Your task to perform on an android device: Open the calendar and show me this week's events Image 0: 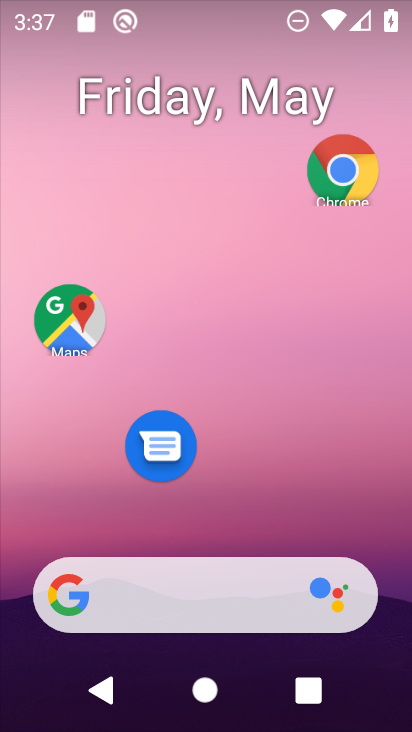
Step 0: press home button
Your task to perform on an android device: Open the calendar and show me this week's events Image 1: 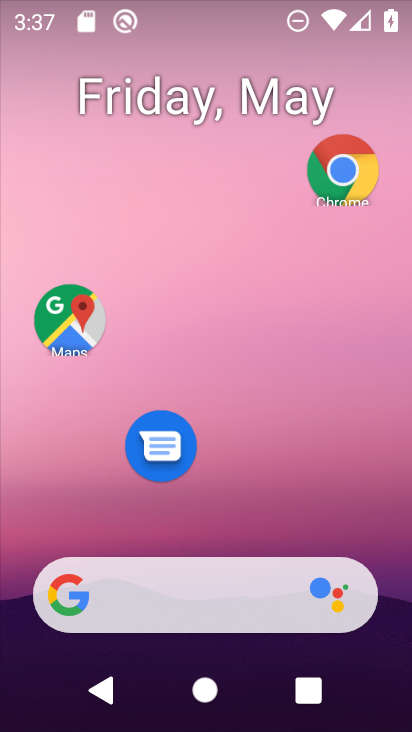
Step 1: drag from (339, 510) to (375, 136)
Your task to perform on an android device: Open the calendar and show me this week's events Image 2: 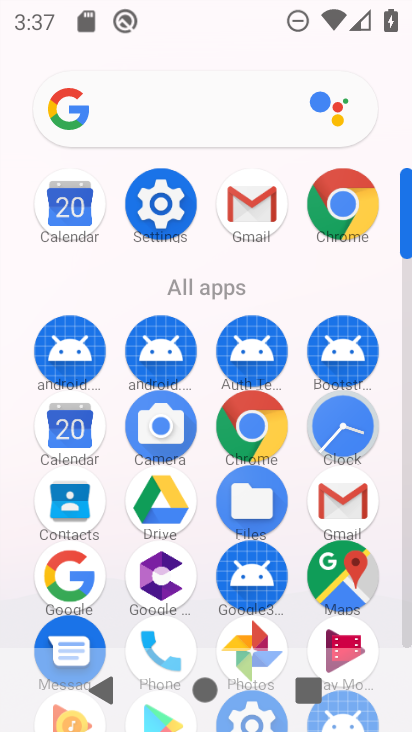
Step 2: click (57, 210)
Your task to perform on an android device: Open the calendar and show me this week's events Image 3: 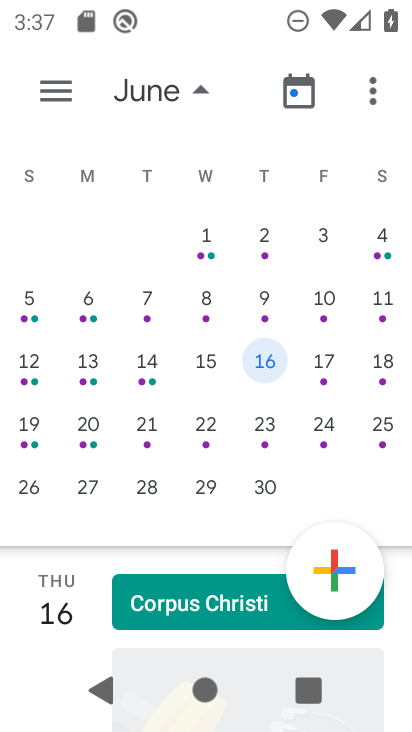
Step 3: click (162, 94)
Your task to perform on an android device: Open the calendar and show me this week's events Image 4: 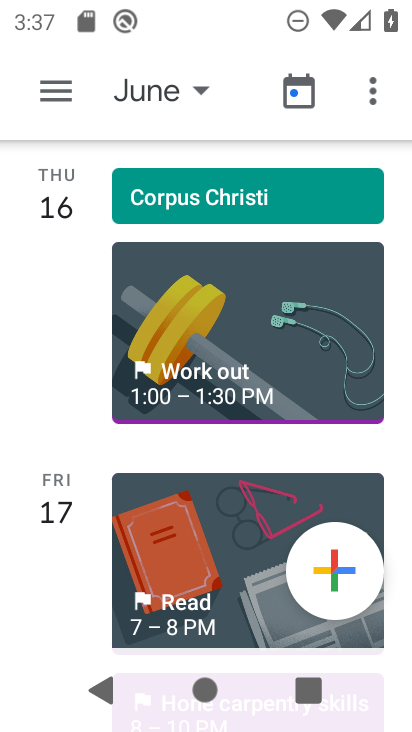
Step 4: click (172, 96)
Your task to perform on an android device: Open the calendar and show me this week's events Image 5: 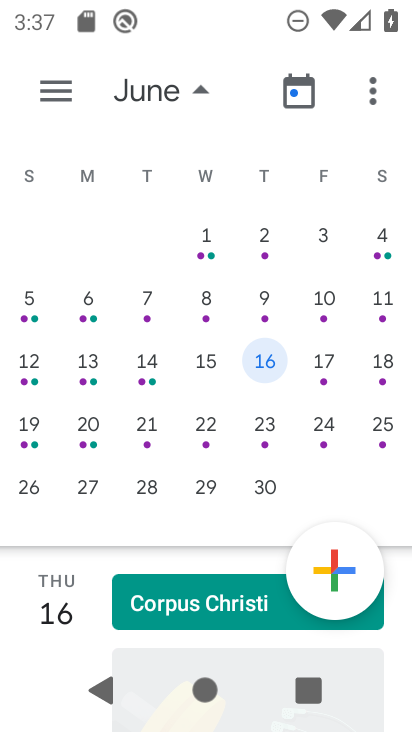
Step 5: drag from (36, 258) to (406, 279)
Your task to perform on an android device: Open the calendar and show me this week's events Image 6: 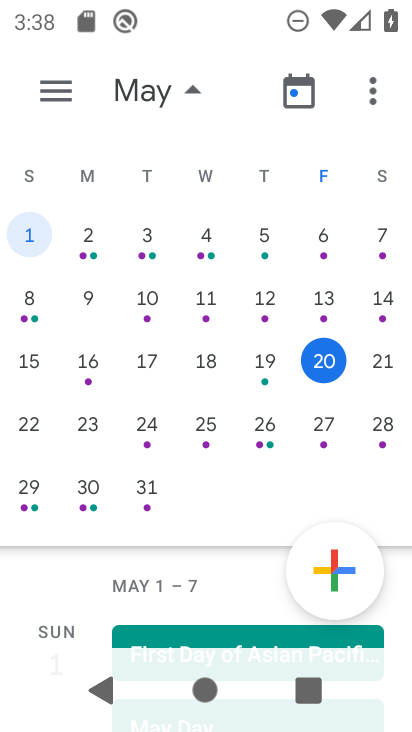
Step 6: click (148, 426)
Your task to perform on an android device: Open the calendar and show me this week's events Image 7: 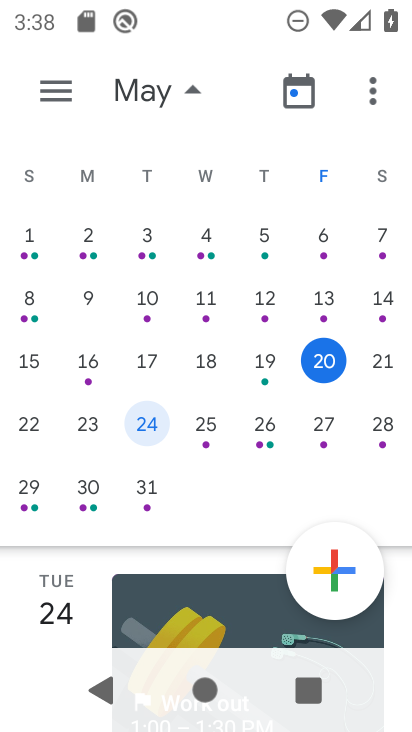
Step 7: task complete